Your task to perform on an android device: open a new tab in the chrome app Image 0: 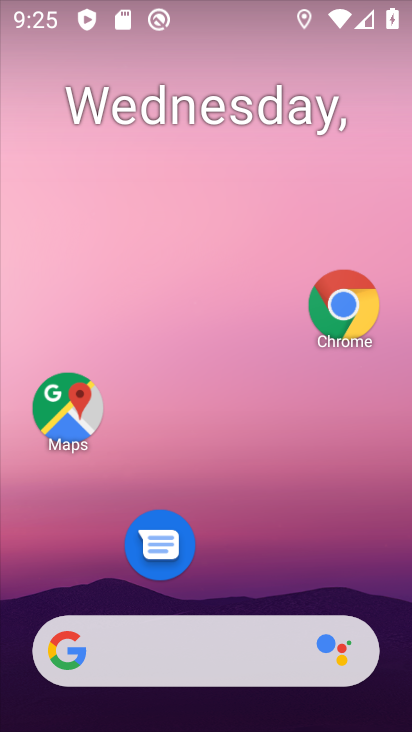
Step 0: click (335, 313)
Your task to perform on an android device: open a new tab in the chrome app Image 1: 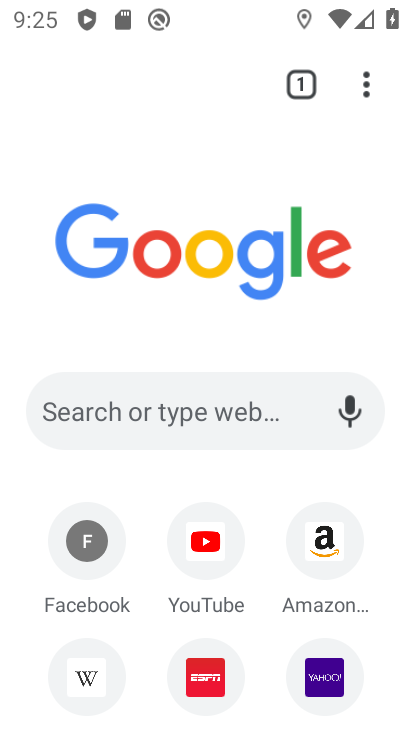
Step 1: click (335, 313)
Your task to perform on an android device: open a new tab in the chrome app Image 2: 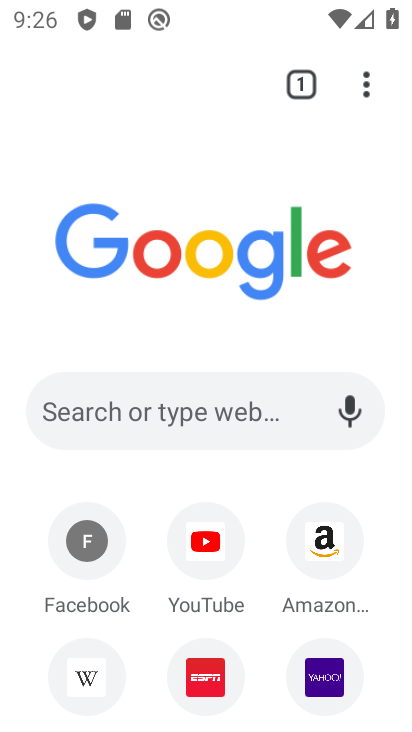
Step 2: drag from (306, 88) to (330, 229)
Your task to perform on an android device: open a new tab in the chrome app Image 3: 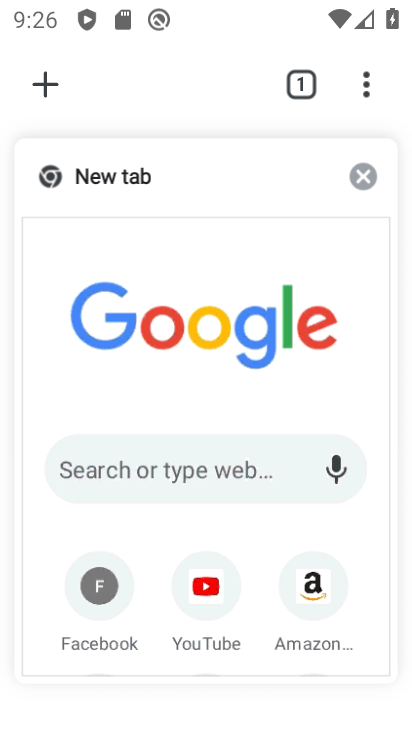
Step 3: click (39, 77)
Your task to perform on an android device: open a new tab in the chrome app Image 4: 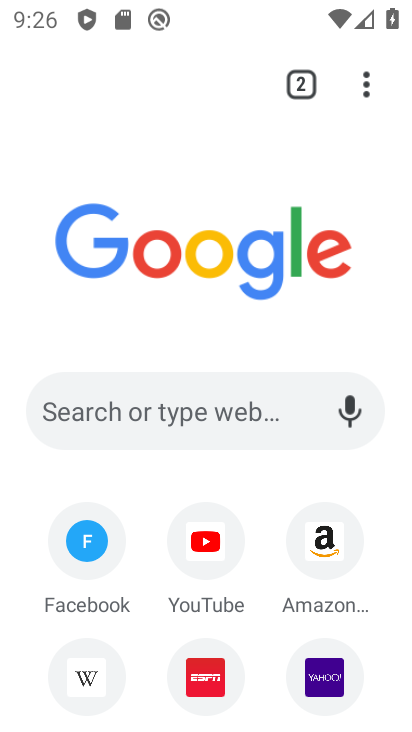
Step 4: task complete